Your task to perform on an android device: see tabs open on other devices in the chrome app Image 0: 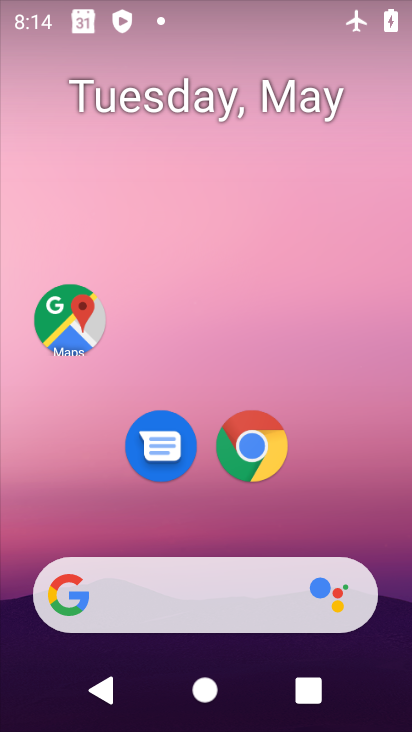
Step 0: click (263, 456)
Your task to perform on an android device: see tabs open on other devices in the chrome app Image 1: 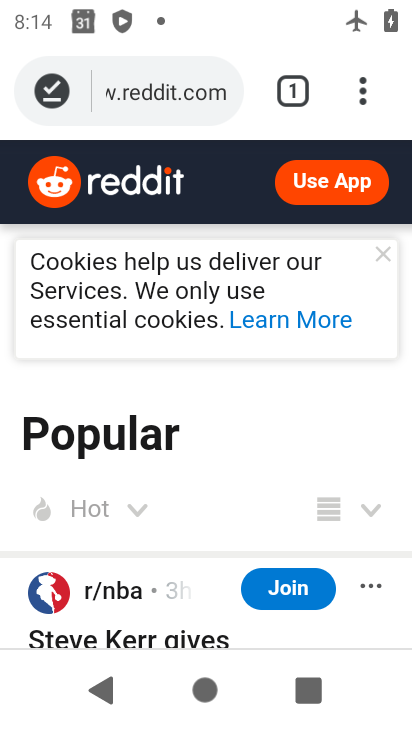
Step 1: click (364, 95)
Your task to perform on an android device: see tabs open on other devices in the chrome app Image 2: 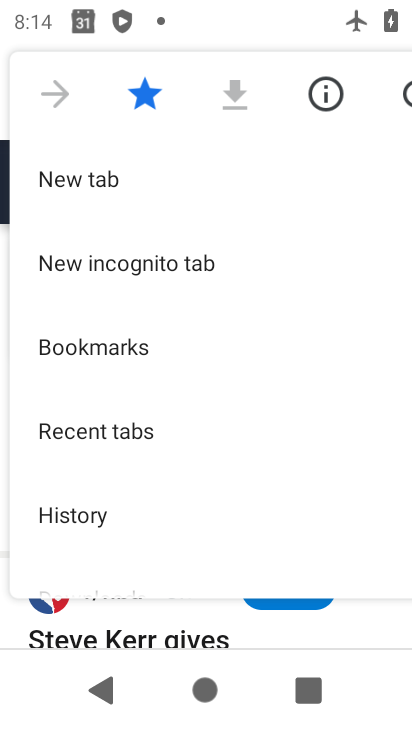
Step 2: click (122, 436)
Your task to perform on an android device: see tabs open on other devices in the chrome app Image 3: 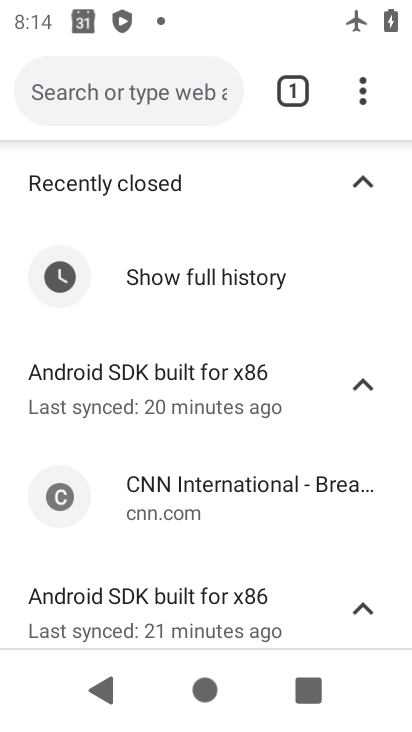
Step 3: task complete